Your task to perform on an android device: Check the weather Image 0: 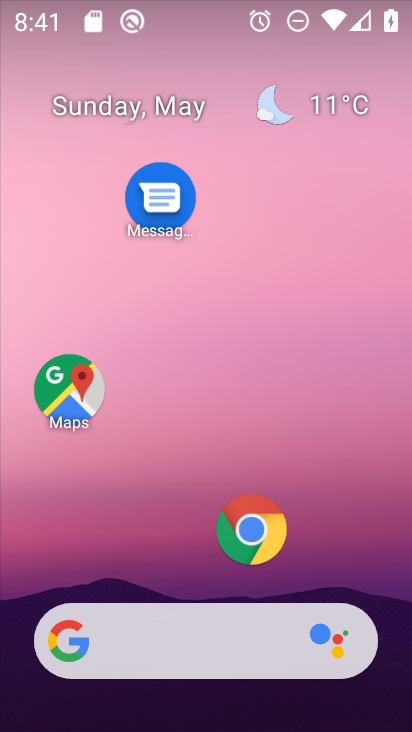
Step 0: click (330, 106)
Your task to perform on an android device: Check the weather Image 1: 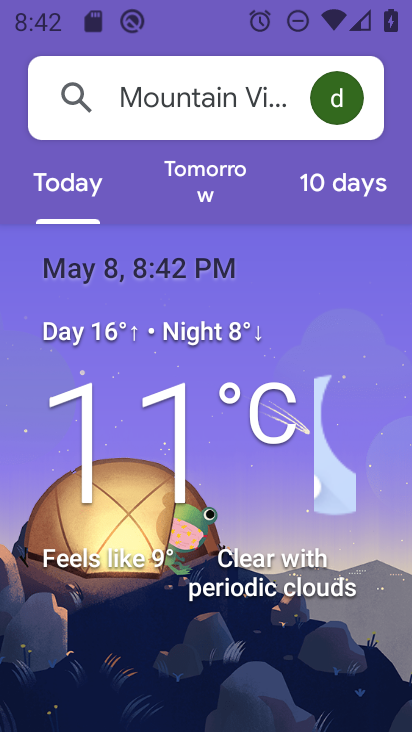
Step 1: task complete